Your task to perform on an android device: open app "Etsy: Buy & Sell Unique Items" Image 0: 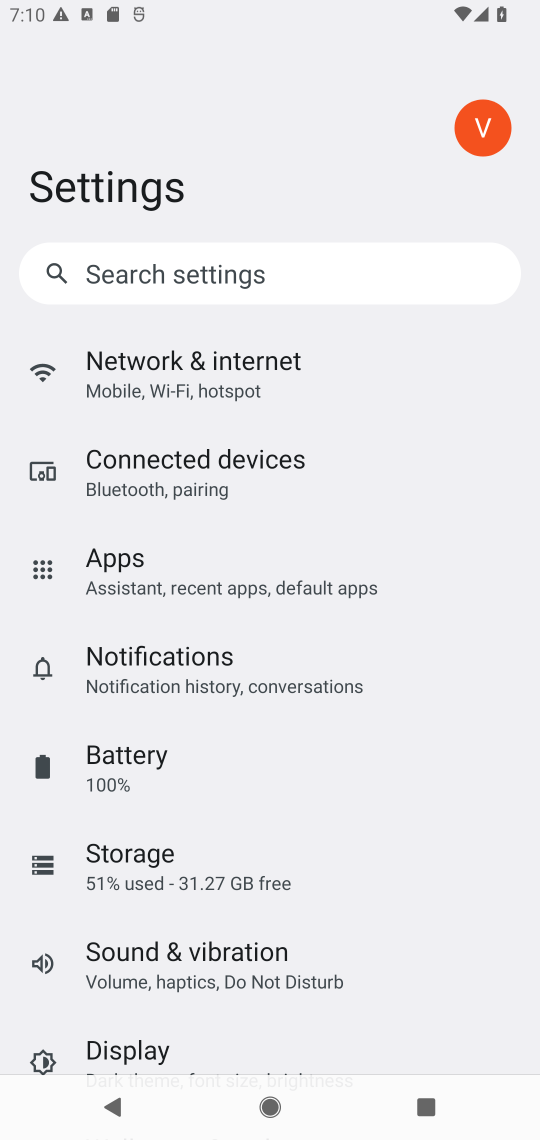
Step 0: press home button
Your task to perform on an android device: open app "Etsy: Buy & Sell Unique Items" Image 1: 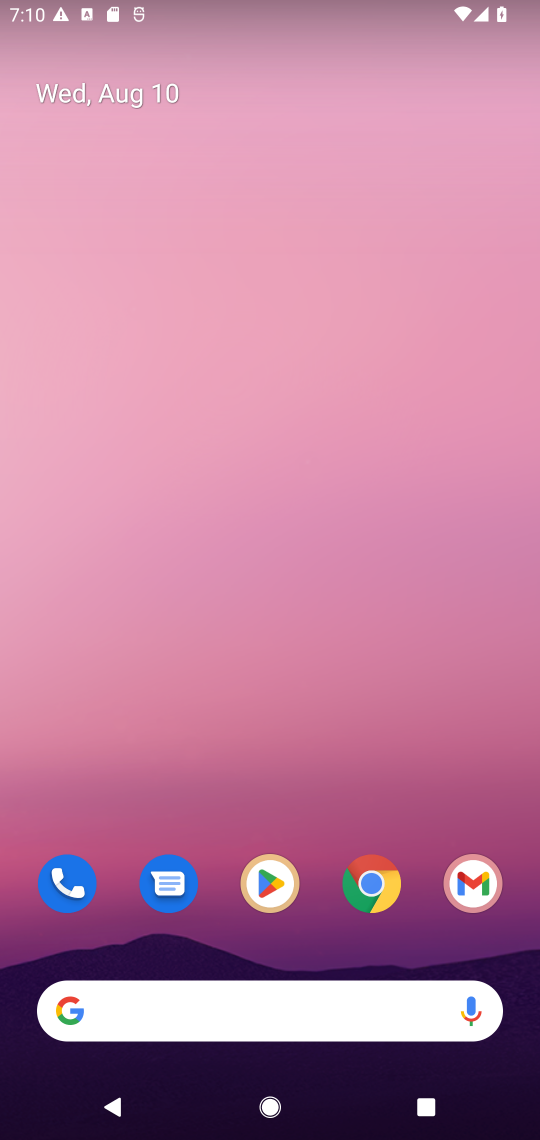
Step 1: drag from (309, 973) to (353, 28)
Your task to perform on an android device: open app "Etsy: Buy & Sell Unique Items" Image 2: 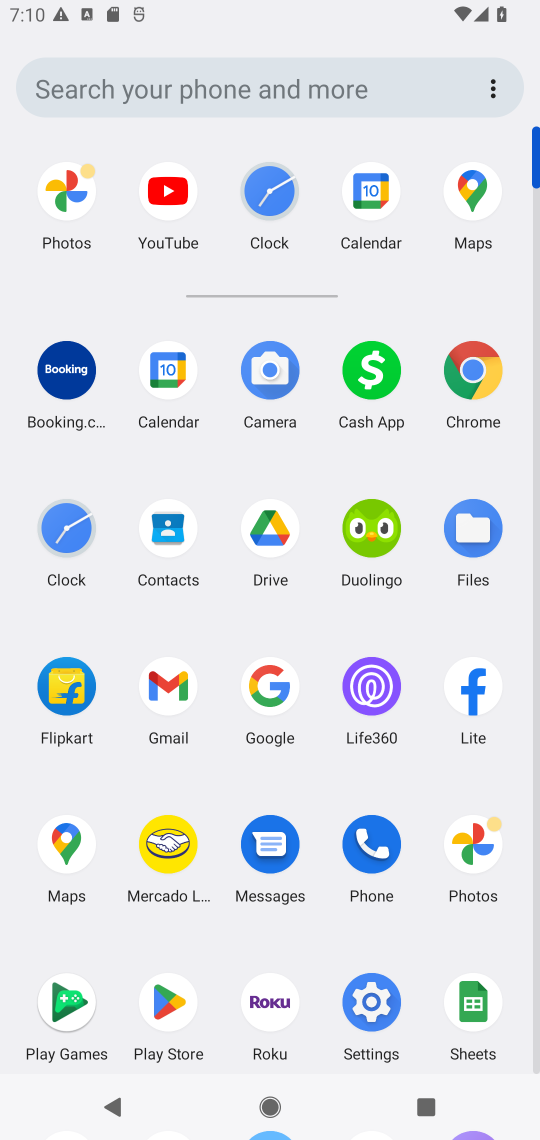
Step 2: click (182, 992)
Your task to perform on an android device: open app "Etsy: Buy & Sell Unique Items" Image 3: 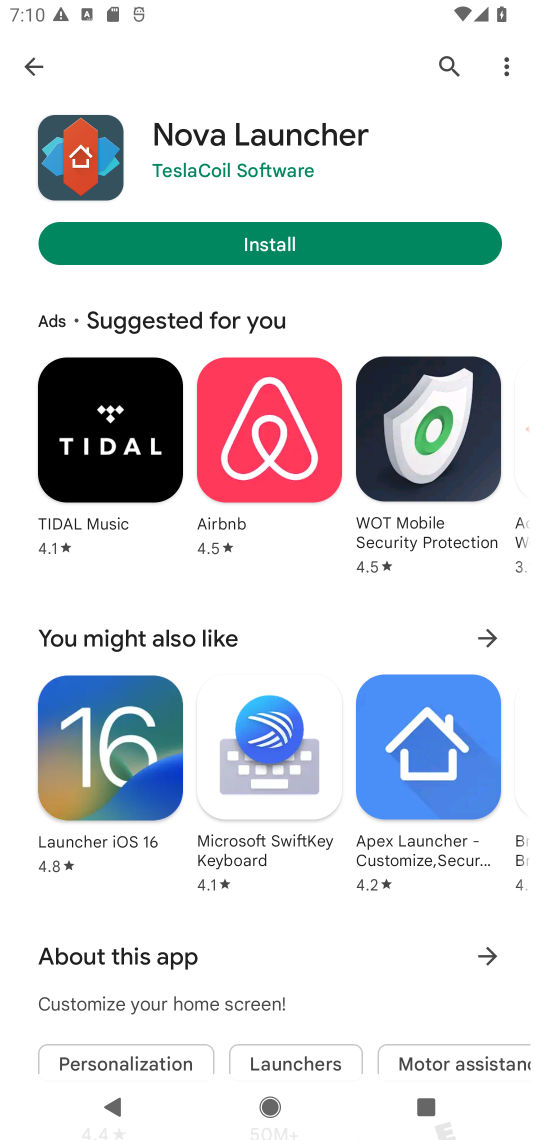
Step 3: click (444, 62)
Your task to perform on an android device: open app "Etsy: Buy & Sell Unique Items" Image 4: 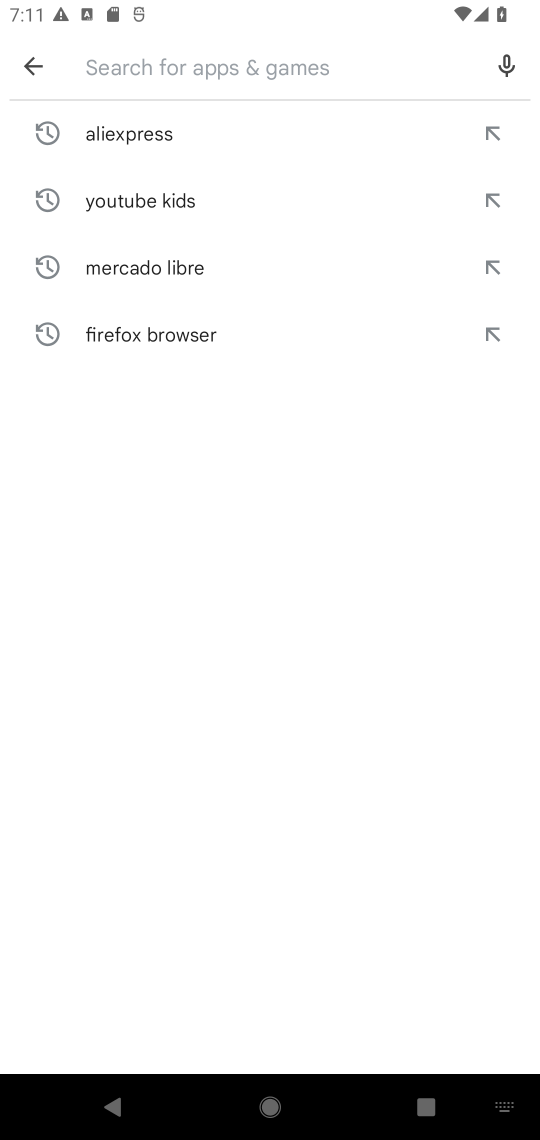
Step 4: click (223, 60)
Your task to perform on an android device: open app "Etsy: Buy & Sell Unique Items" Image 5: 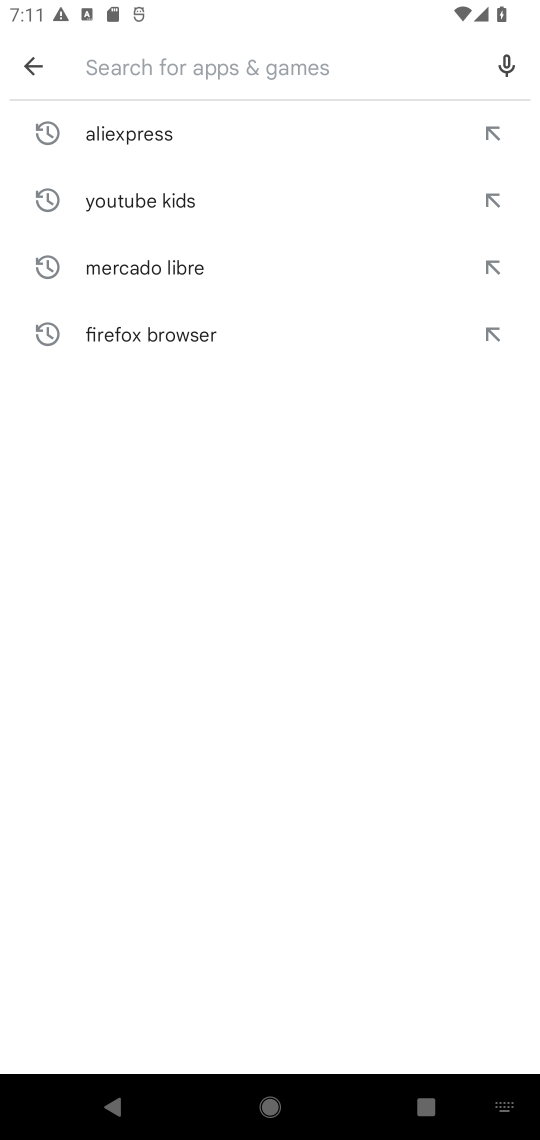
Step 5: type "Etsy: Buy & Sell Unique Items"
Your task to perform on an android device: open app "Etsy: Buy & Sell Unique Items" Image 6: 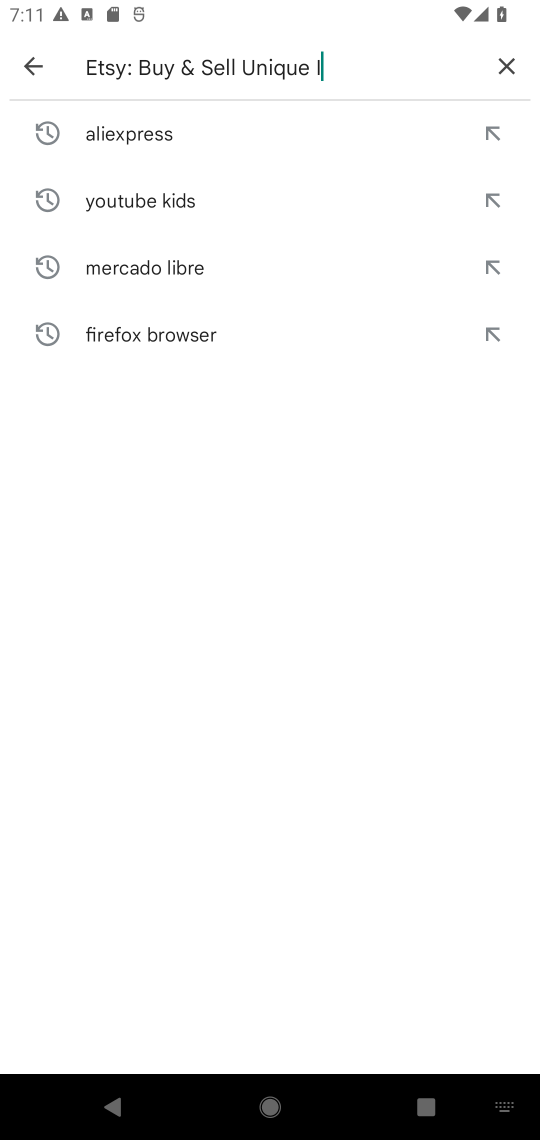
Step 6: type ""
Your task to perform on an android device: open app "Etsy: Buy & Sell Unique Items" Image 7: 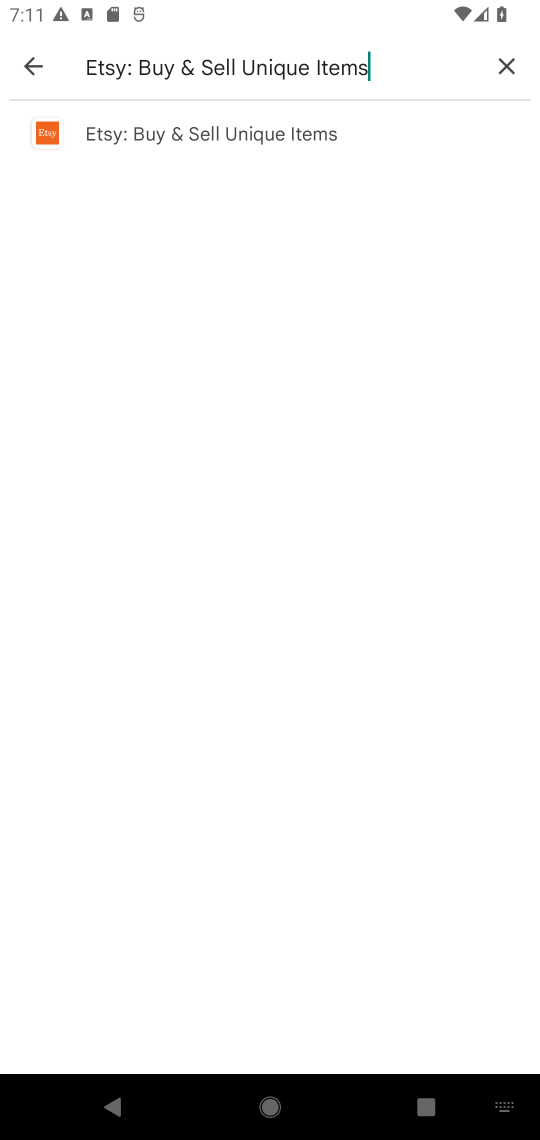
Step 7: click (245, 131)
Your task to perform on an android device: open app "Etsy: Buy & Sell Unique Items" Image 8: 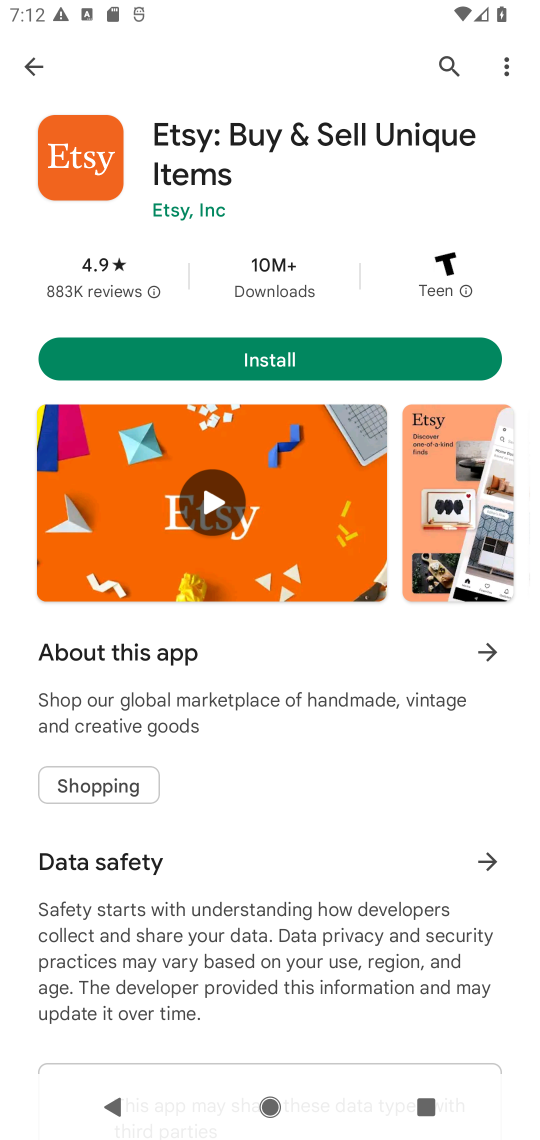
Step 8: task complete